Your task to perform on an android device: turn pop-ups on in chrome Image 0: 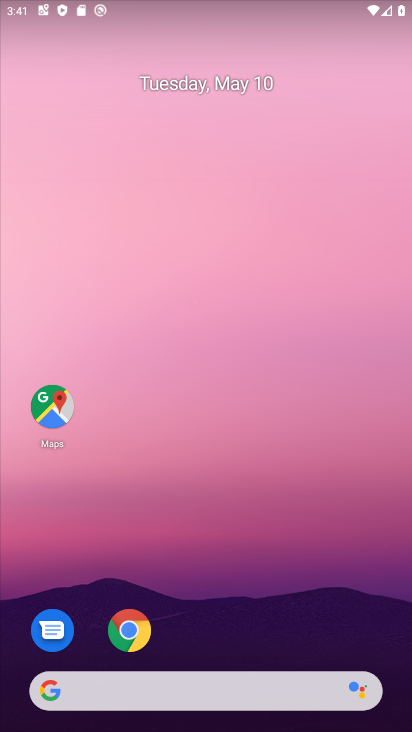
Step 0: click (129, 633)
Your task to perform on an android device: turn pop-ups on in chrome Image 1: 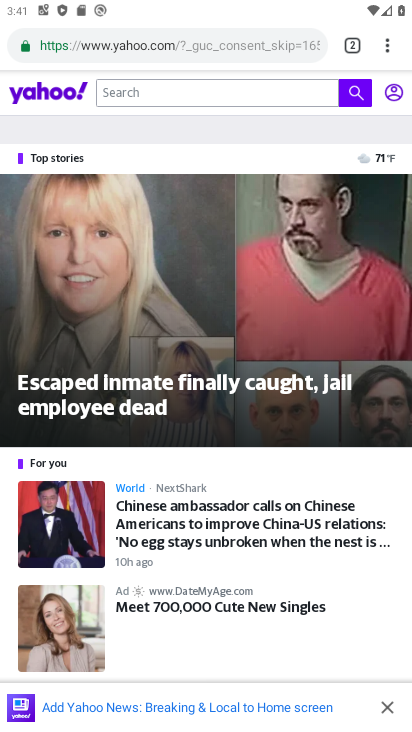
Step 1: click (398, 42)
Your task to perform on an android device: turn pop-ups on in chrome Image 2: 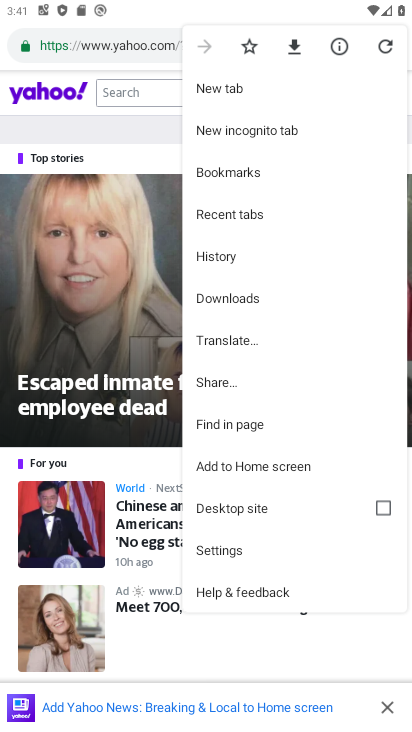
Step 2: click (211, 553)
Your task to perform on an android device: turn pop-ups on in chrome Image 3: 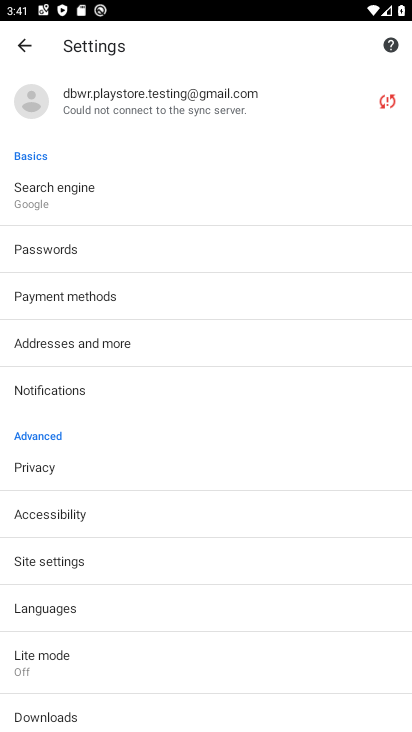
Step 3: drag from (211, 553) to (281, 121)
Your task to perform on an android device: turn pop-ups on in chrome Image 4: 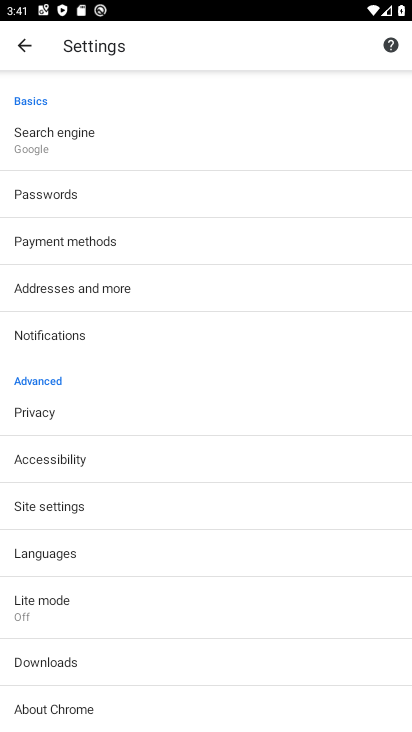
Step 4: click (125, 515)
Your task to perform on an android device: turn pop-ups on in chrome Image 5: 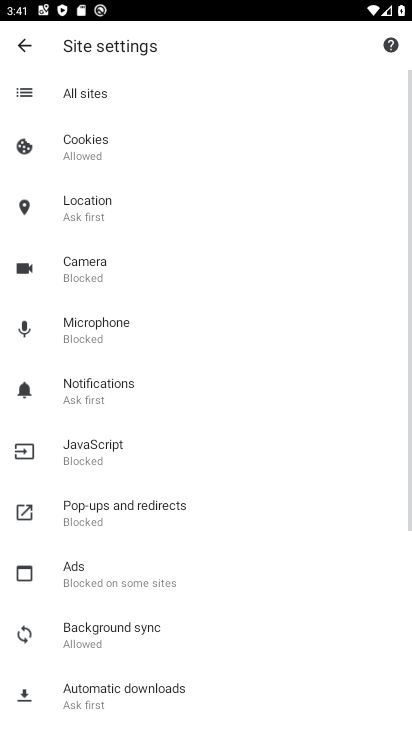
Step 5: click (125, 515)
Your task to perform on an android device: turn pop-ups on in chrome Image 6: 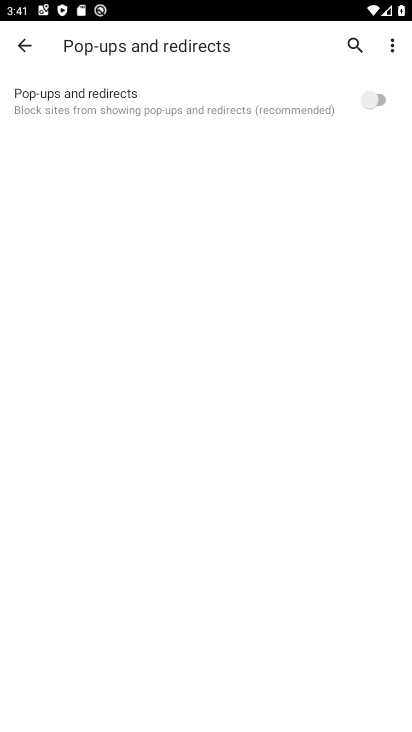
Step 6: click (369, 113)
Your task to perform on an android device: turn pop-ups on in chrome Image 7: 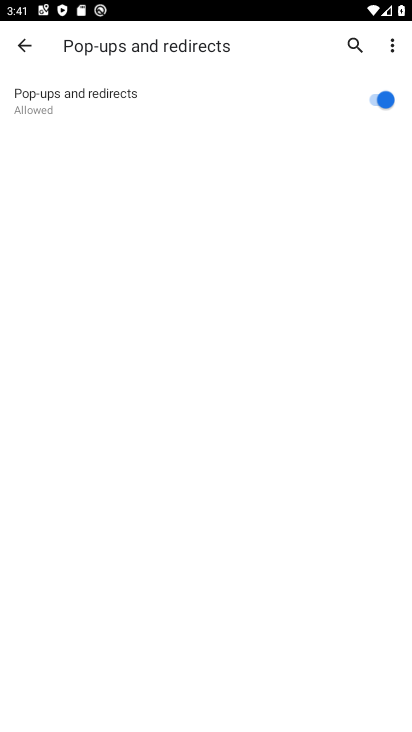
Step 7: task complete